Your task to perform on an android device: toggle data saver in the chrome app Image 0: 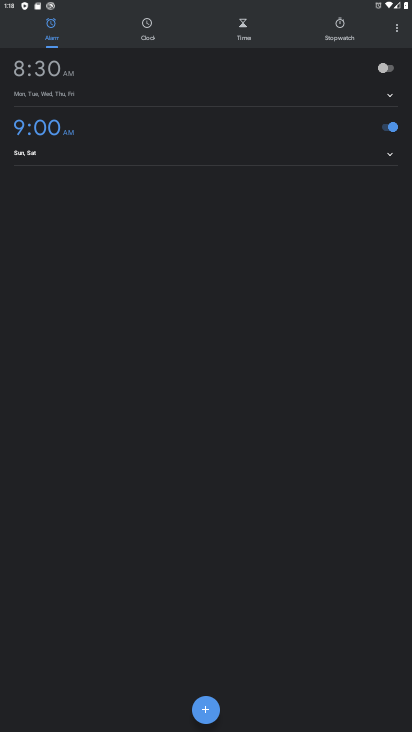
Step 0: press home button
Your task to perform on an android device: toggle data saver in the chrome app Image 1: 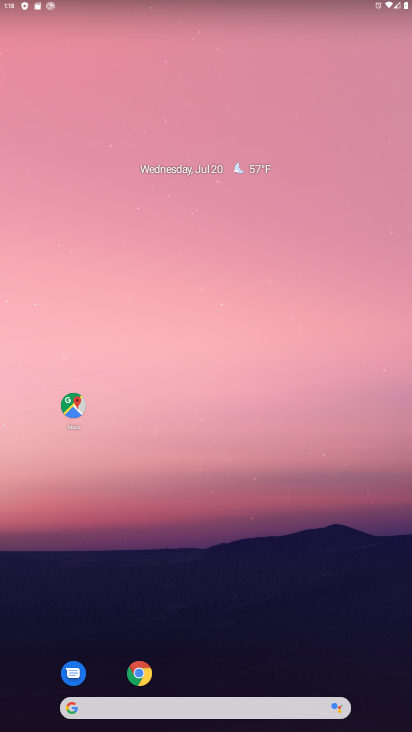
Step 1: click (138, 671)
Your task to perform on an android device: toggle data saver in the chrome app Image 2: 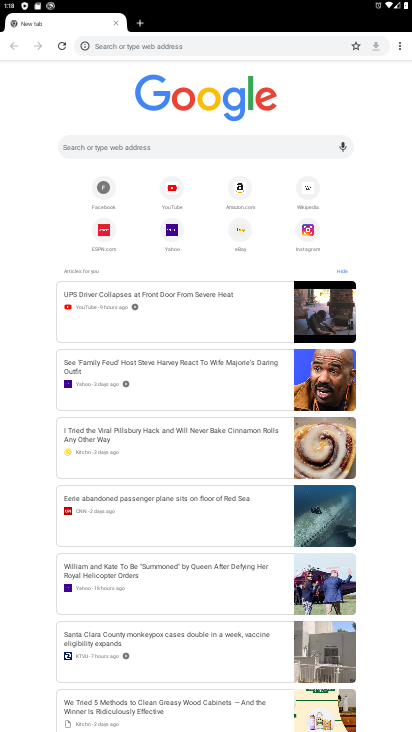
Step 2: click (401, 46)
Your task to perform on an android device: toggle data saver in the chrome app Image 3: 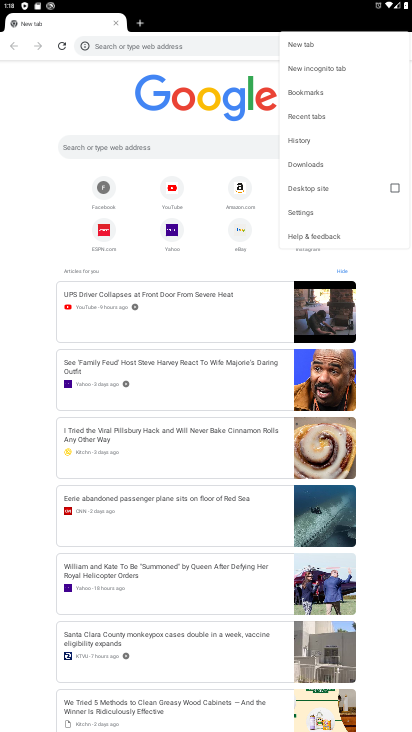
Step 3: click (327, 210)
Your task to perform on an android device: toggle data saver in the chrome app Image 4: 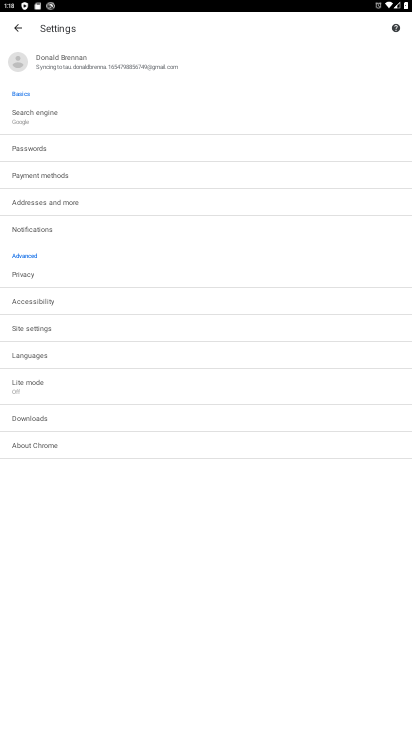
Step 4: click (43, 384)
Your task to perform on an android device: toggle data saver in the chrome app Image 5: 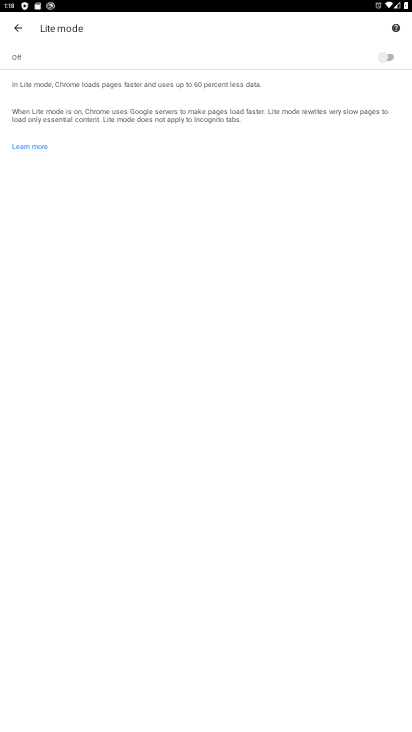
Step 5: click (391, 54)
Your task to perform on an android device: toggle data saver in the chrome app Image 6: 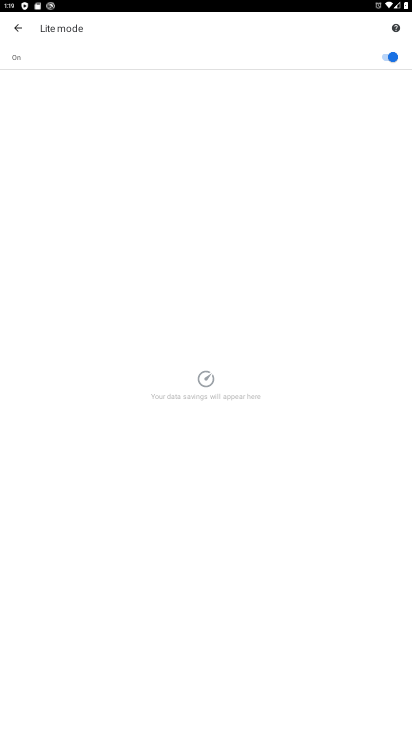
Step 6: task complete